Your task to perform on an android device: change the clock display to show seconds Image 0: 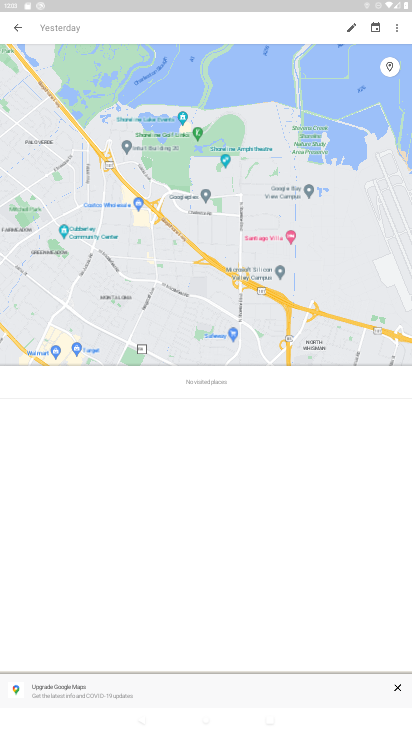
Step 0: press home button
Your task to perform on an android device: change the clock display to show seconds Image 1: 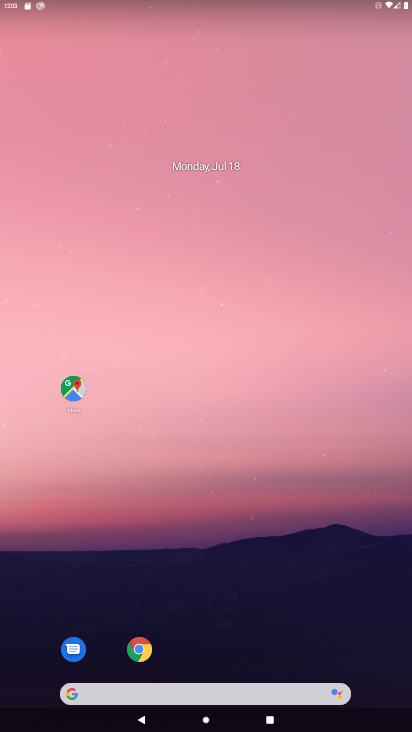
Step 1: drag from (204, 668) to (193, 32)
Your task to perform on an android device: change the clock display to show seconds Image 2: 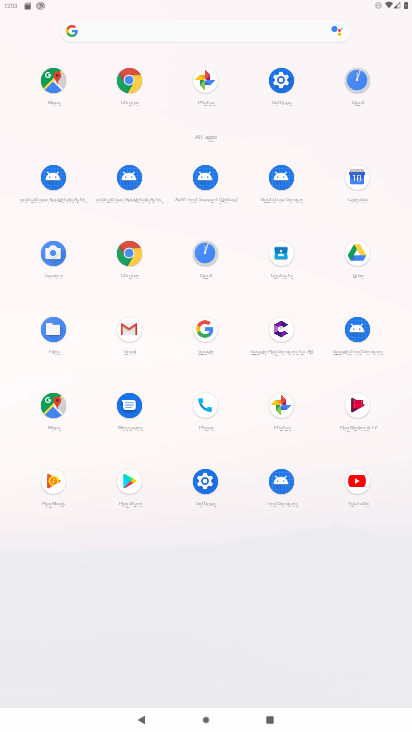
Step 2: click (360, 79)
Your task to perform on an android device: change the clock display to show seconds Image 3: 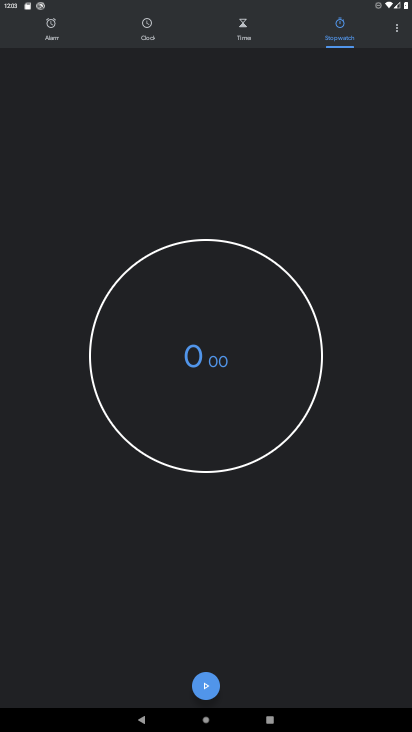
Step 3: click (392, 37)
Your task to perform on an android device: change the clock display to show seconds Image 4: 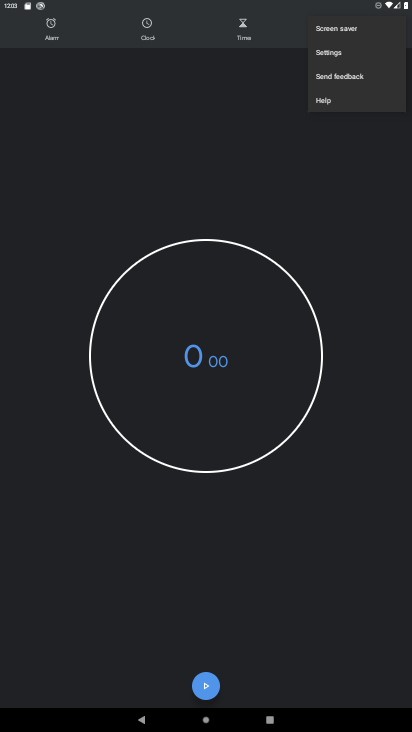
Step 4: click (353, 53)
Your task to perform on an android device: change the clock display to show seconds Image 5: 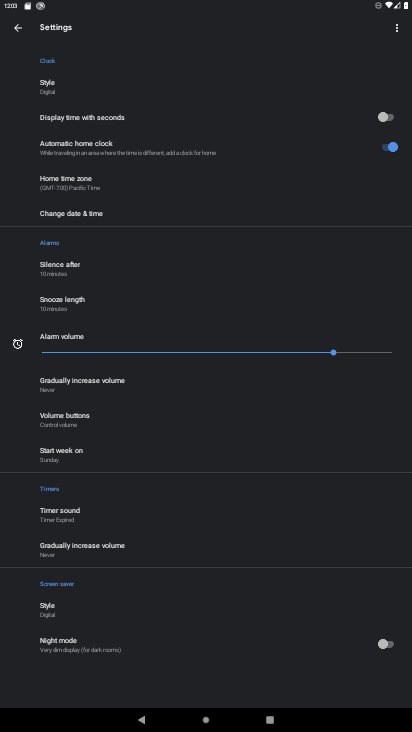
Step 5: click (394, 112)
Your task to perform on an android device: change the clock display to show seconds Image 6: 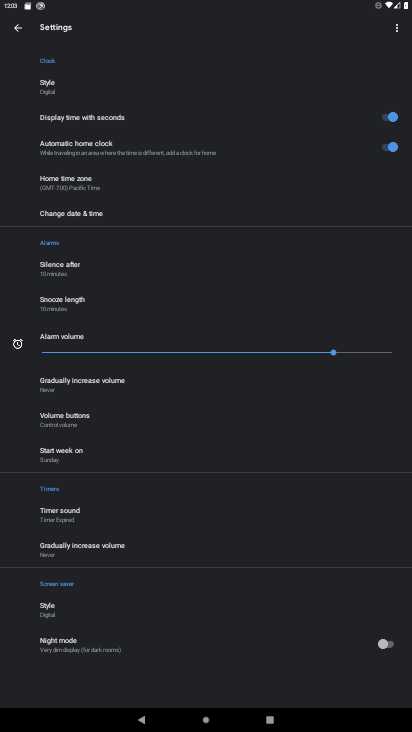
Step 6: task complete